Your task to perform on an android device: see tabs open on other devices in the chrome app Image 0: 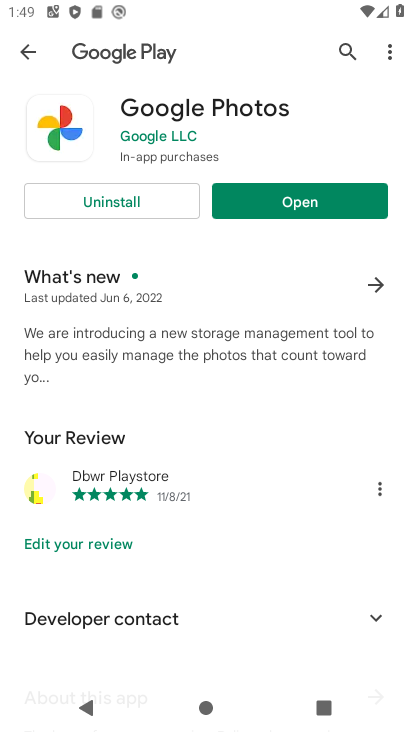
Step 0: press home button
Your task to perform on an android device: see tabs open on other devices in the chrome app Image 1: 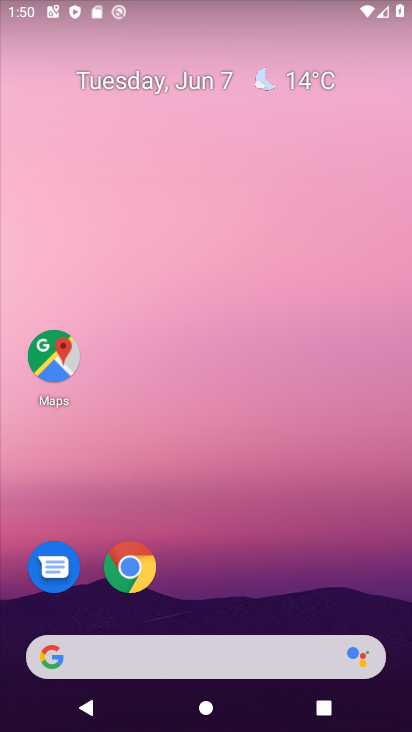
Step 1: drag from (286, 546) to (325, 1)
Your task to perform on an android device: see tabs open on other devices in the chrome app Image 2: 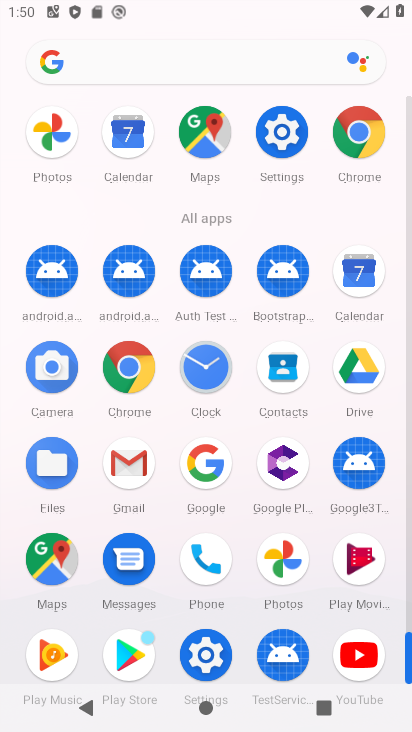
Step 2: click (367, 122)
Your task to perform on an android device: see tabs open on other devices in the chrome app Image 3: 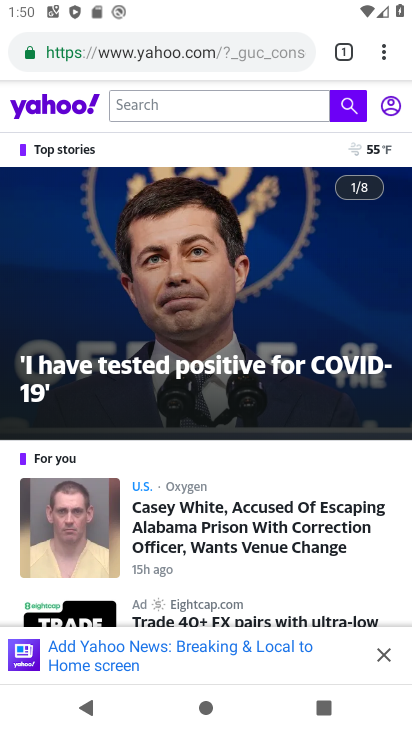
Step 3: task complete